Your task to perform on an android device: make emails show in primary in the gmail app Image 0: 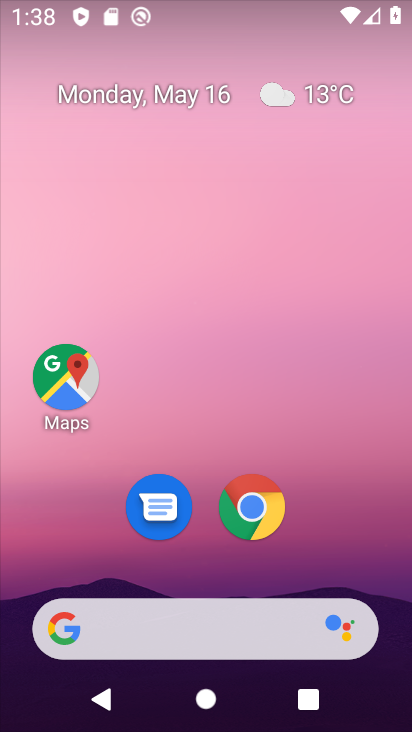
Step 0: drag from (377, 564) to (377, 73)
Your task to perform on an android device: make emails show in primary in the gmail app Image 1: 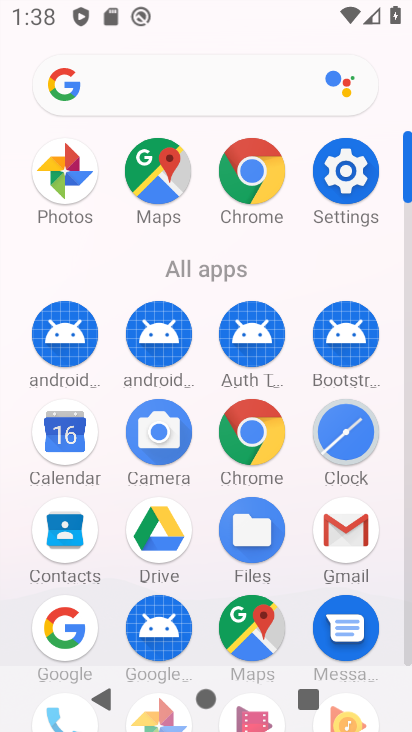
Step 1: click (352, 543)
Your task to perform on an android device: make emails show in primary in the gmail app Image 2: 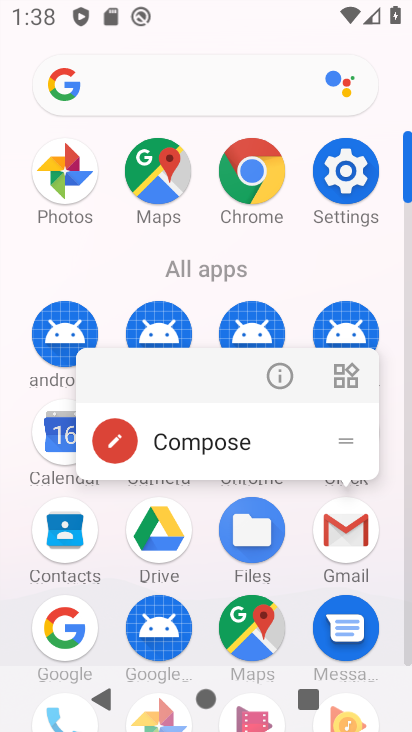
Step 2: click (352, 543)
Your task to perform on an android device: make emails show in primary in the gmail app Image 3: 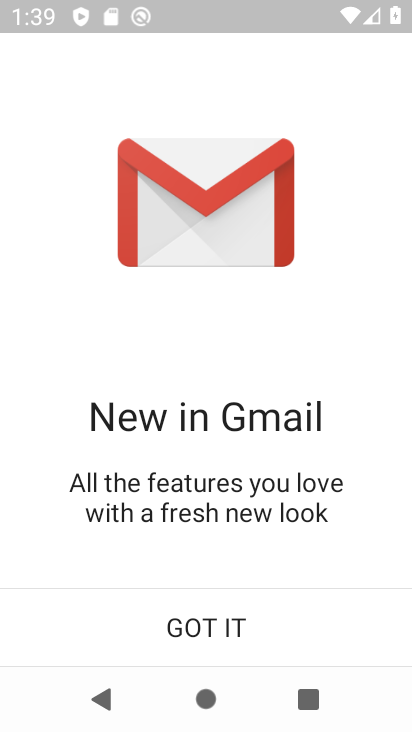
Step 3: click (219, 627)
Your task to perform on an android device: make emails show in primary in the gmail app Image 4: 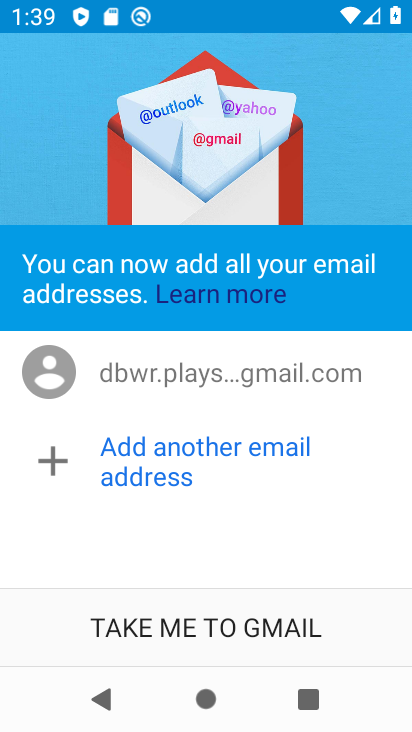
Step 4: click (219, 627)
Your task to perform on an android device: make emails show in primary in the gmail app Image 5: 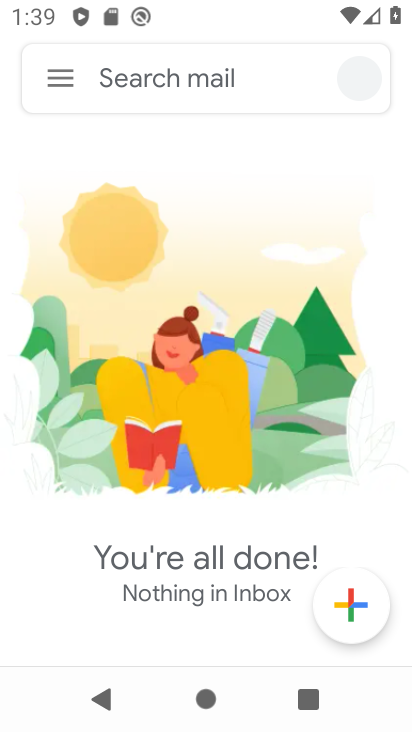
Step 5: click (67, 91)
Your task to perform on an android device: make emails show in primary in the gmail app Image 6: 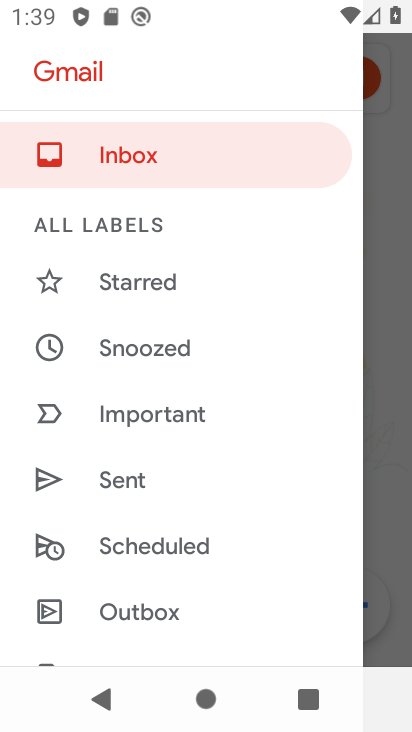
Step 6: drag from (330, 591) to (347, 409)
Your task to perform on an android device: make emails show in primary in the gmail app Image 7: 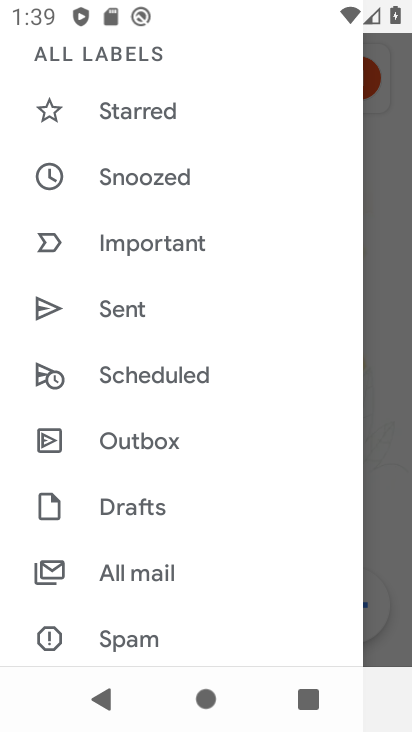
Step 7: drag from (310, 617) to (296, 478)
Your task to perform on an android device: make emails show in primary in the gmail app Image 8: 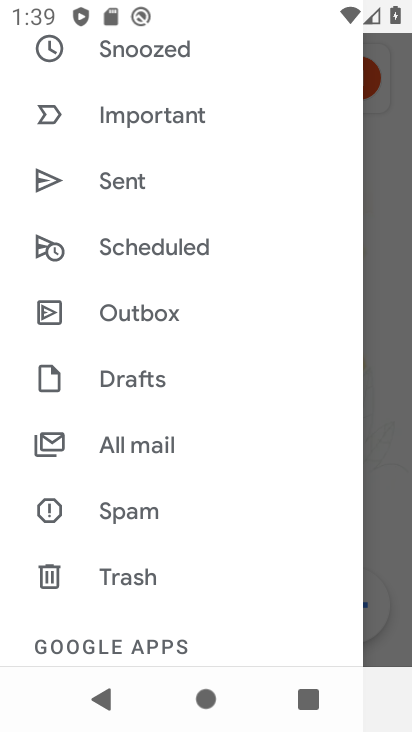
Step 8: drag from (281, 628) to (281, 465)
Your task to perform on an android device: make emails show in primary in the gmail app Image 9: 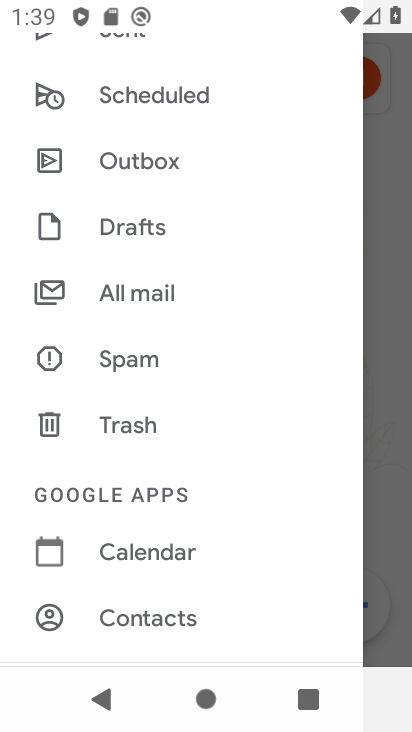
Step 9: drag from (291, 609) to (296, 425)
Your task to perform on an android device: make emails show in primary in the gmail app Image 10: 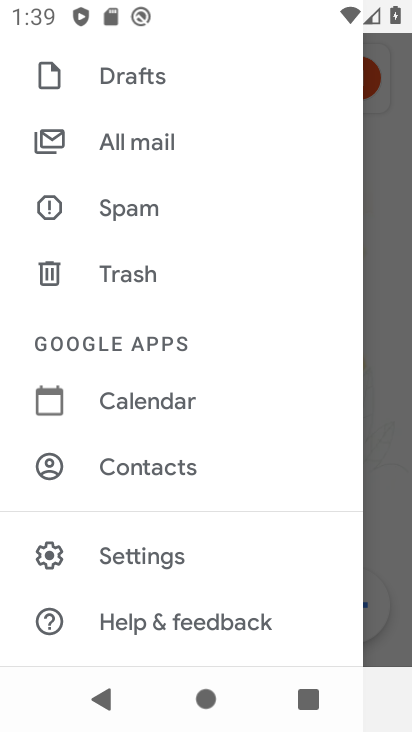
Step 10: click (165, 564)
Your task to perform on an android device: make emails show in primary in the gmail app Image 11: 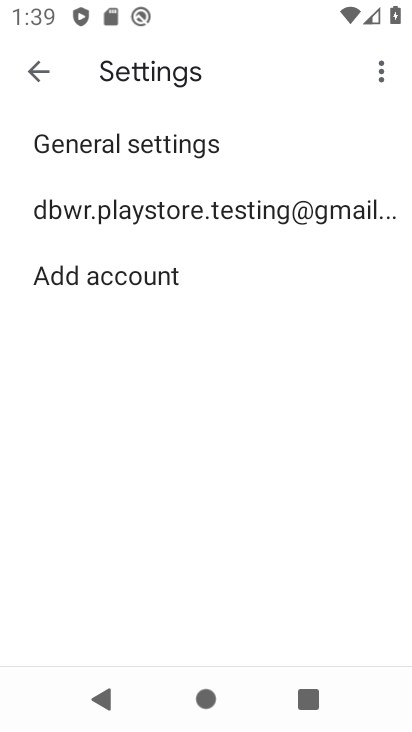
Step 11: click (222, 216)
Your task to perform on an android device: make emails show in primary in the gmail app Image 12: 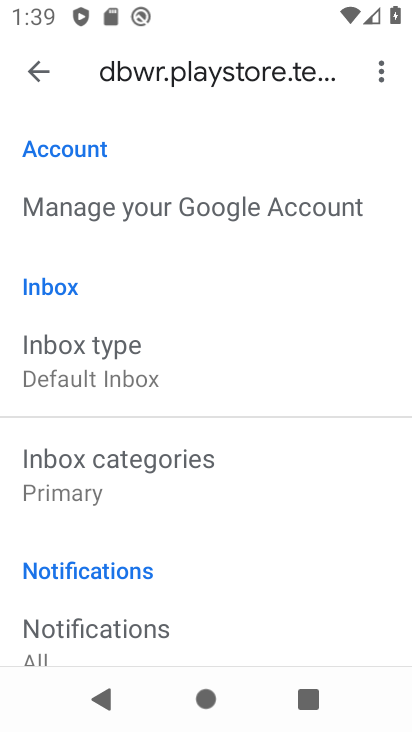
Step 12: drag from (295, 580) to (300, 410)
Your task to perform on an android device: make emails show in primary in the gmail app Image 13: 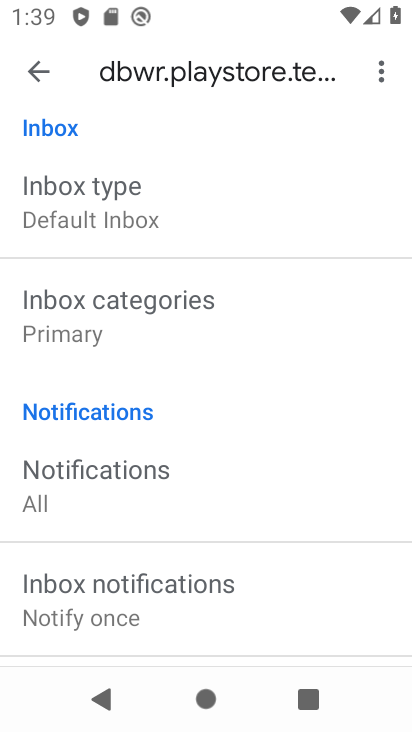
Step 13: click (88, 312)
Your task to perform on an android device: make emails show in primary in the gmail app Image 14: 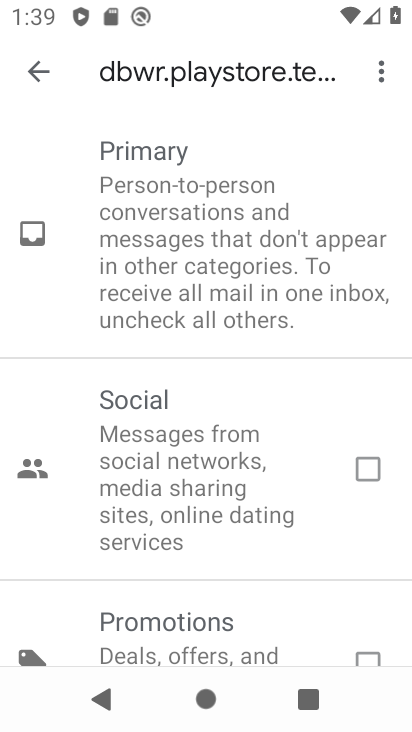
Step 14: task complete